Your task to perform on an android device: Open calendar and show me the fourth week of next month Image 0: 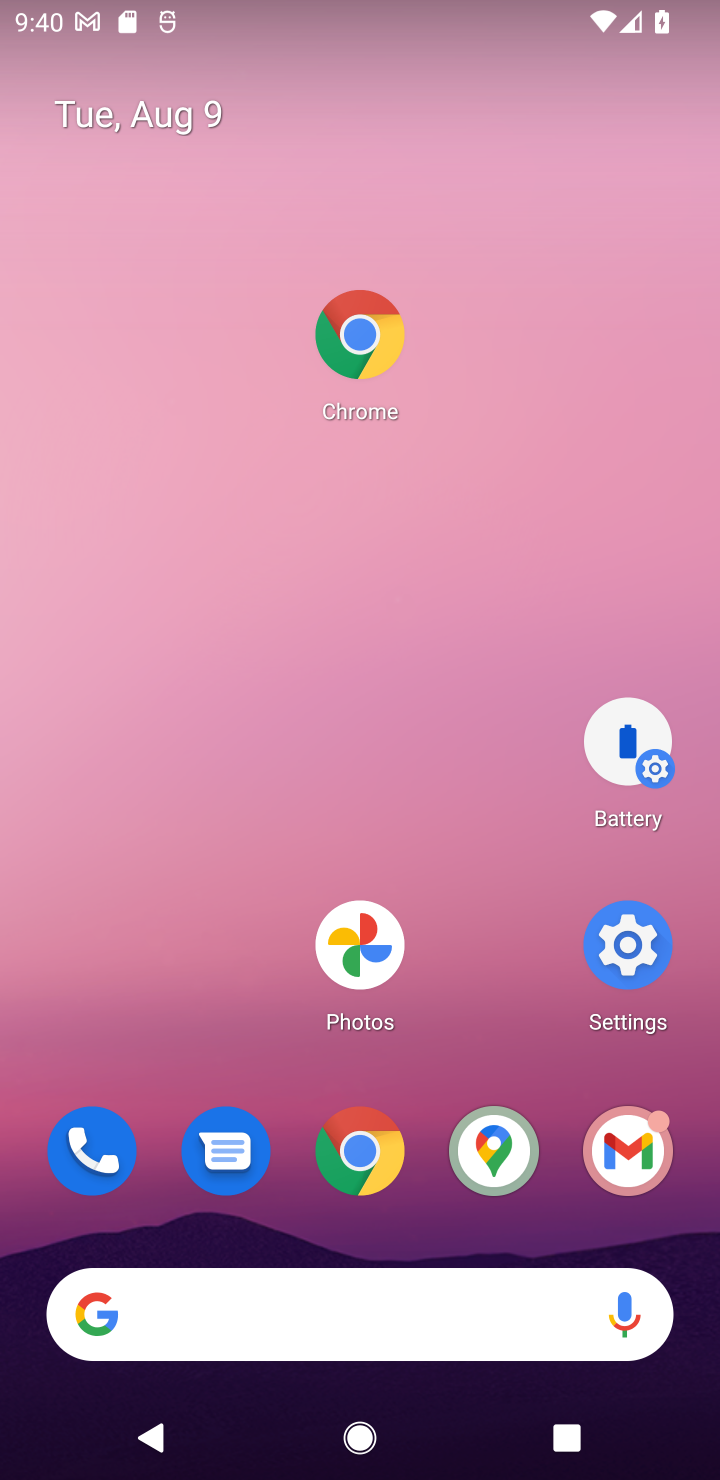
Step 0: press back button
Your task to perform on an android device: Open calendar and show me the fourth week of next month Image 1: 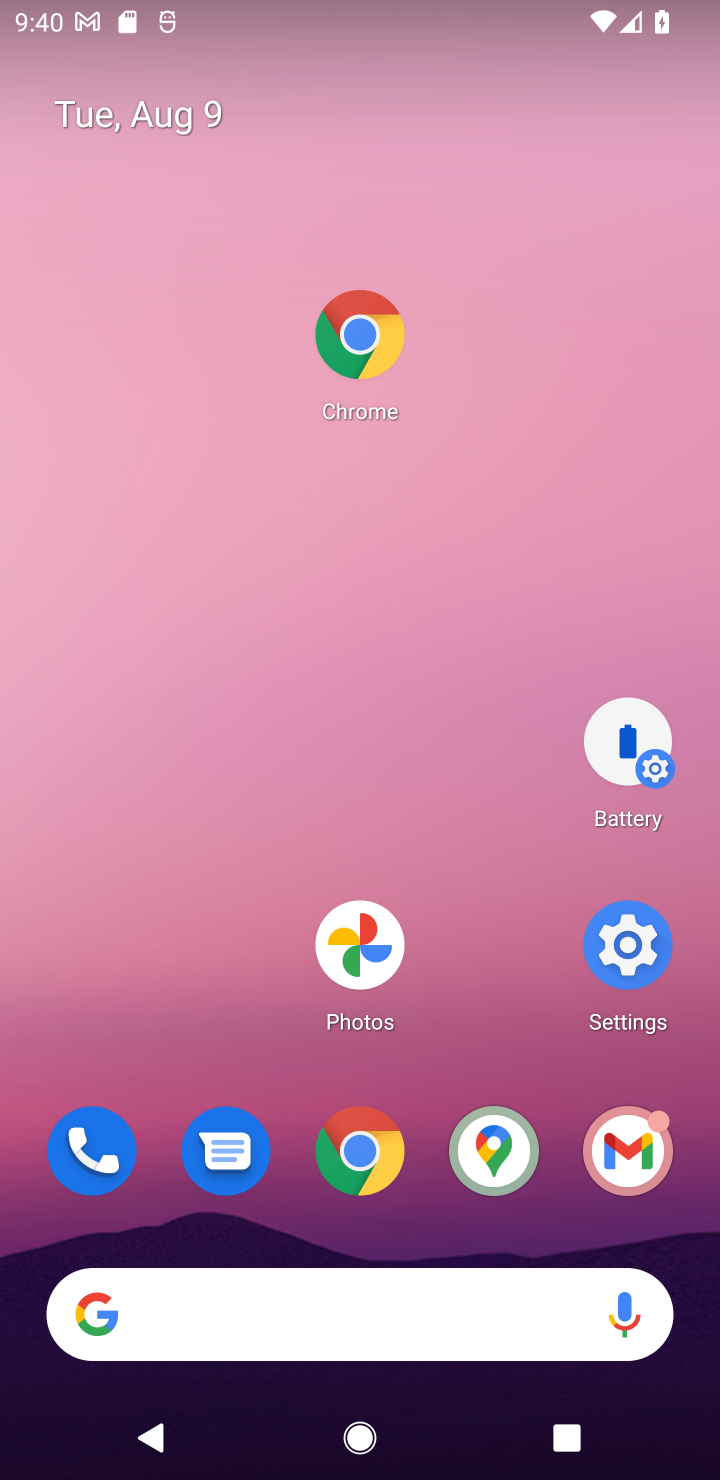
Step 1: drag from (267, 230) to (344, 360)
Your task to perform on an android device: Open calendar and show me the fourth week of next month Image 2: 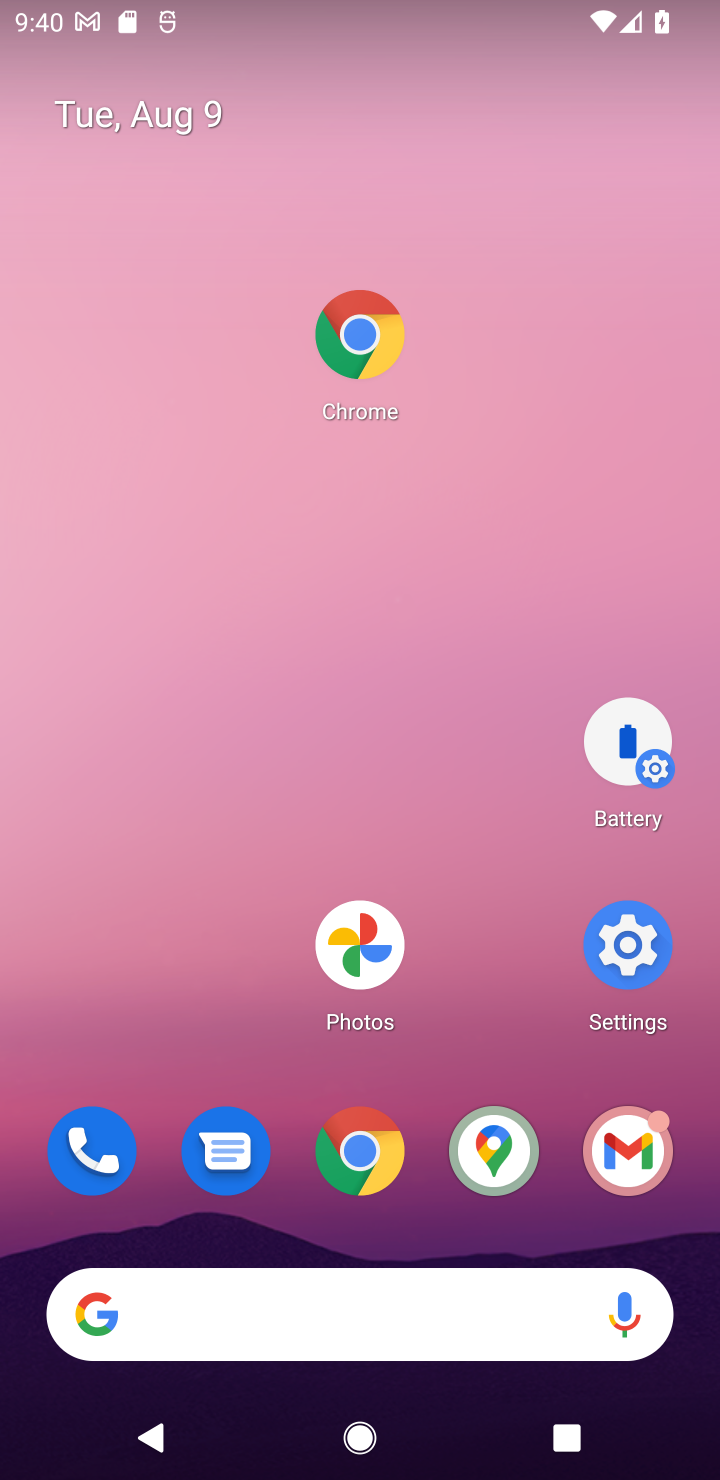
Step 2: drag from (283, 284) to (424, 737)
Your task to perform on an android device: Open calendar and show me the fourth week of next month Image 3: 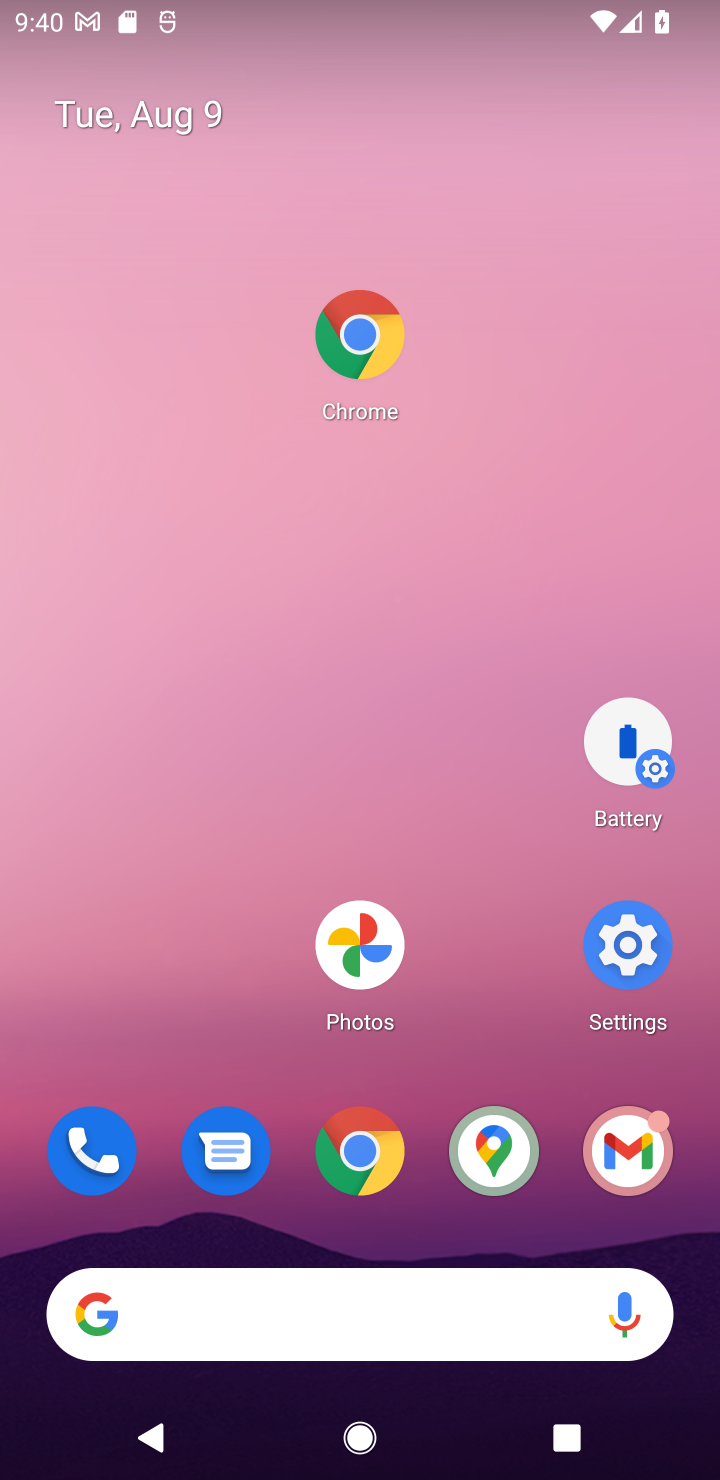
Step 3: drag from (295, 310) to (302, 175)
Your task to perform on an android device: Open calendar and show me the fourth week of next month Image 4: 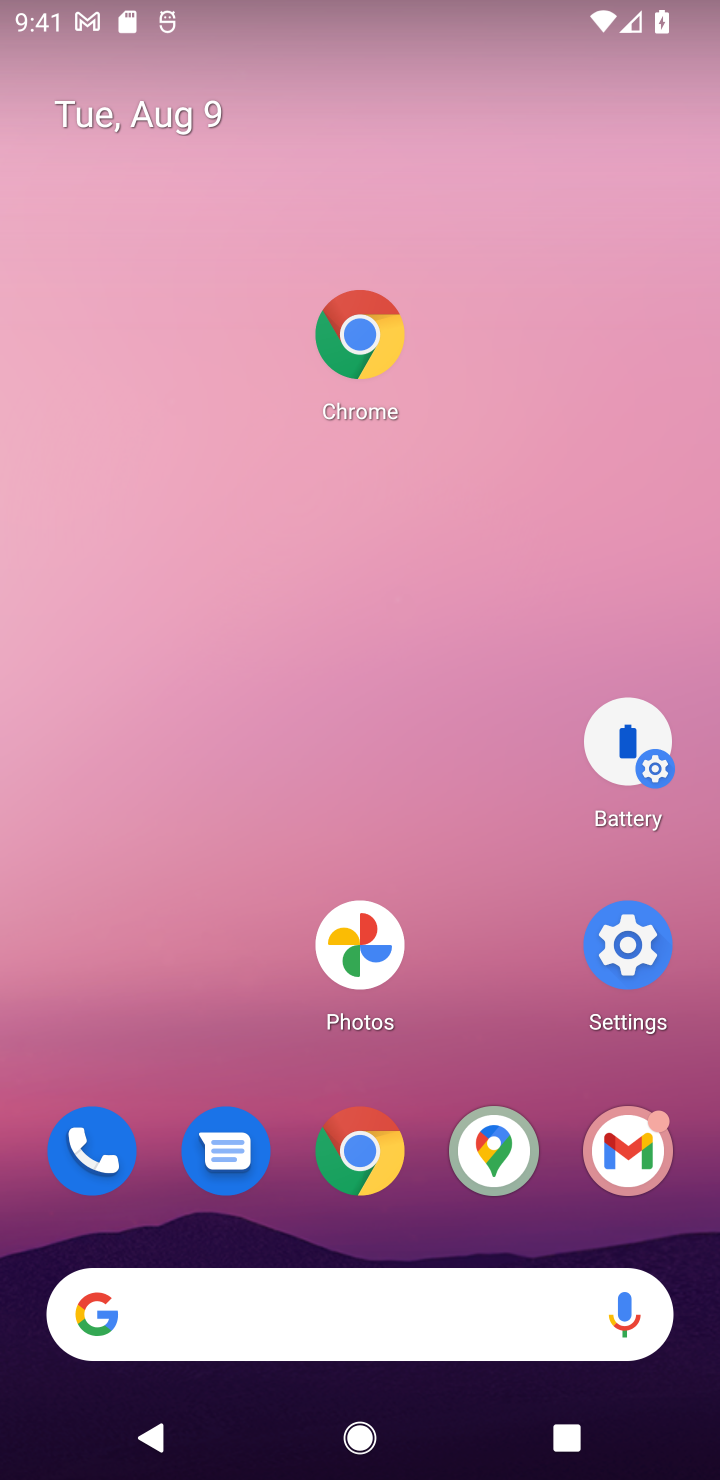
Step 4: drag from (400, 537) to (322, 406)
Your task to perform on an android device: Open calendar and show me the fourth week of next month Image 5: 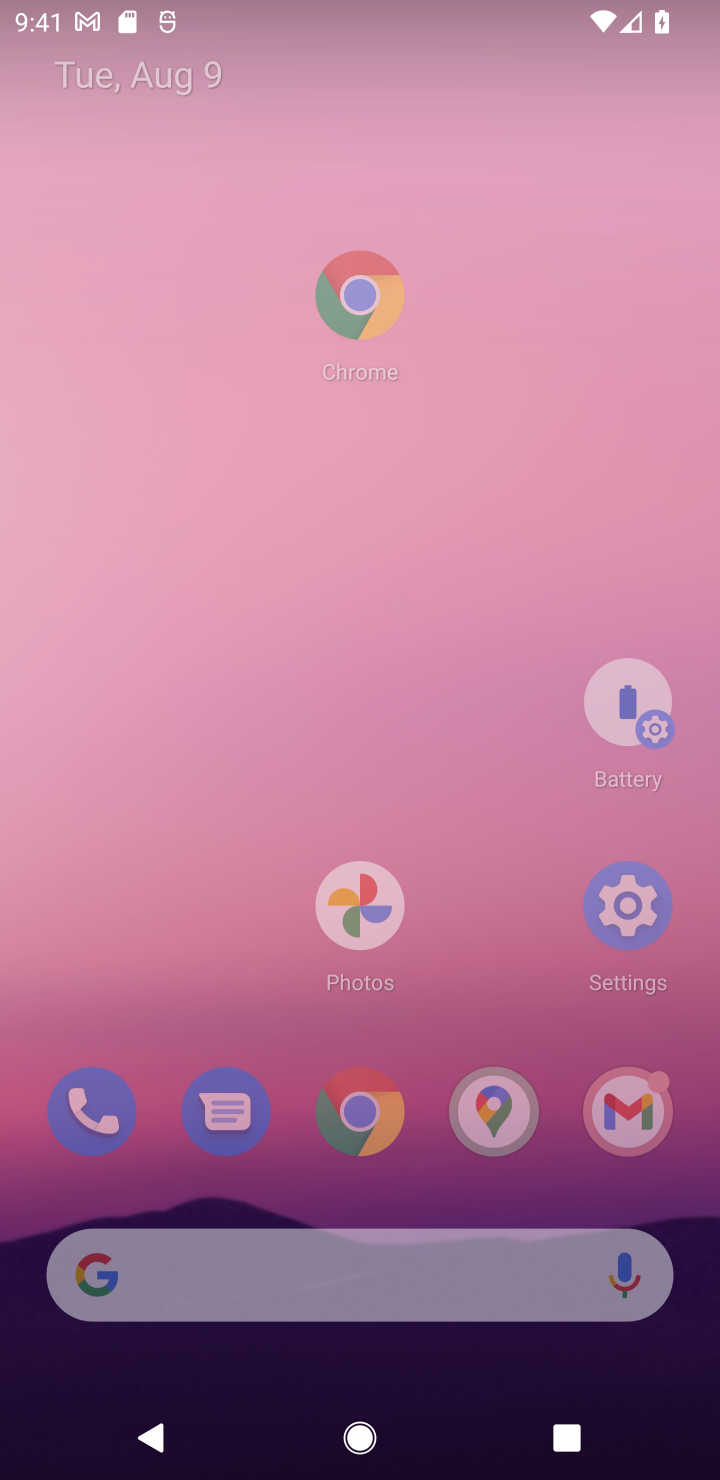
Step 5: drag from (307, 1151) to (261, 329)
Your task to perform on an android device: Open calendar and show me the fourth week of next month Image 6: 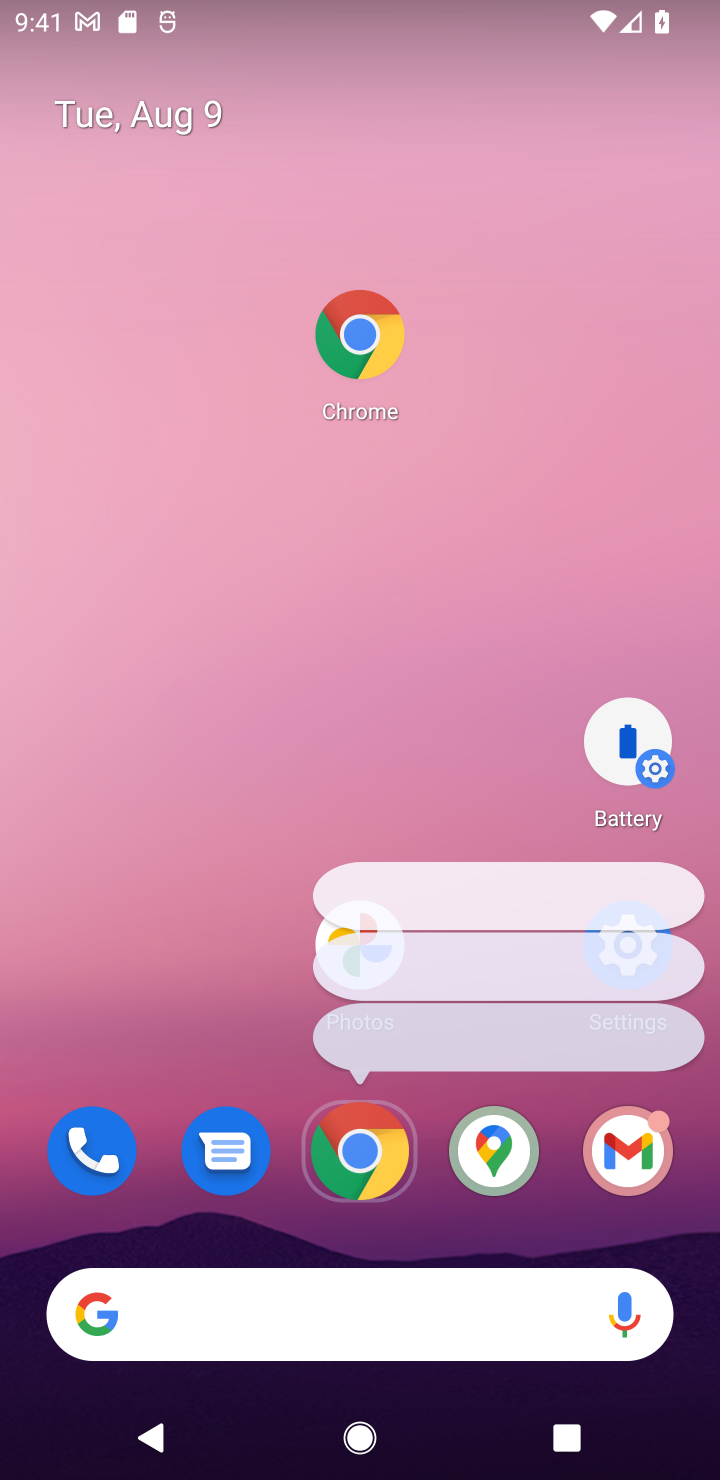
Step 6: drag from (441, 1117) to (206, 699)
Your task to perform on an android device: Open calendar and show me the fourth week of next month Image 7: 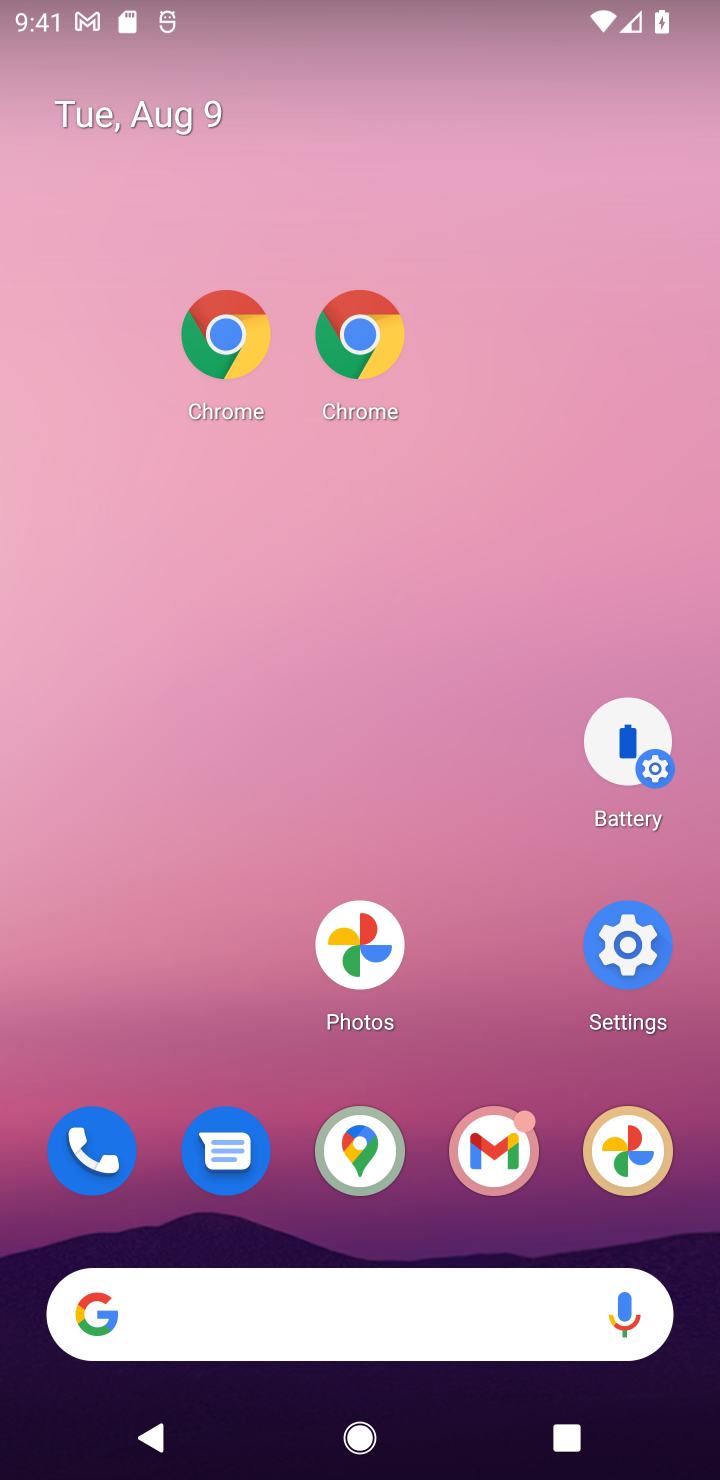
Step 7: press back button
Your task to perform on an android device: Open calendar and show me the fourth week of next month Image 8: 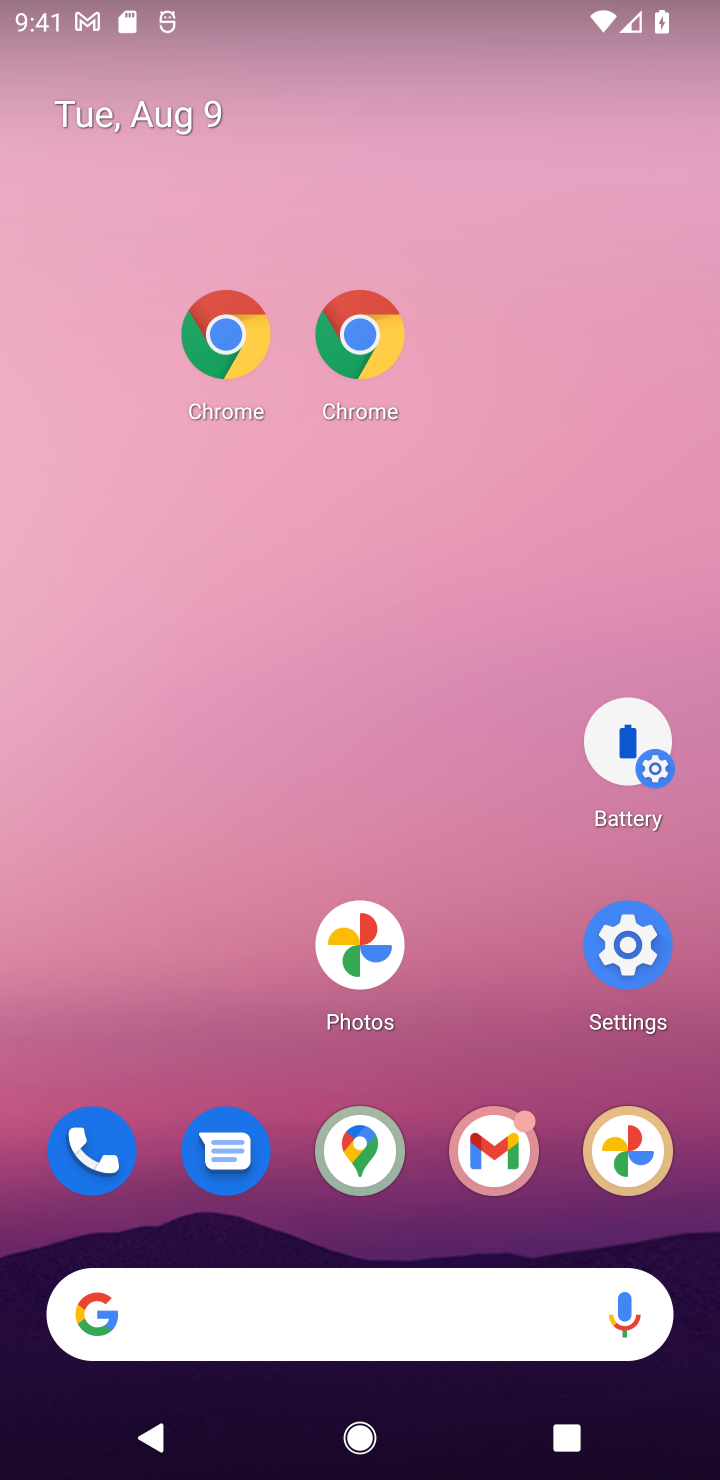
Step 8: press back button
Your task to perform on an android device: Open calendar and show me the fourth week of next month Image 9: 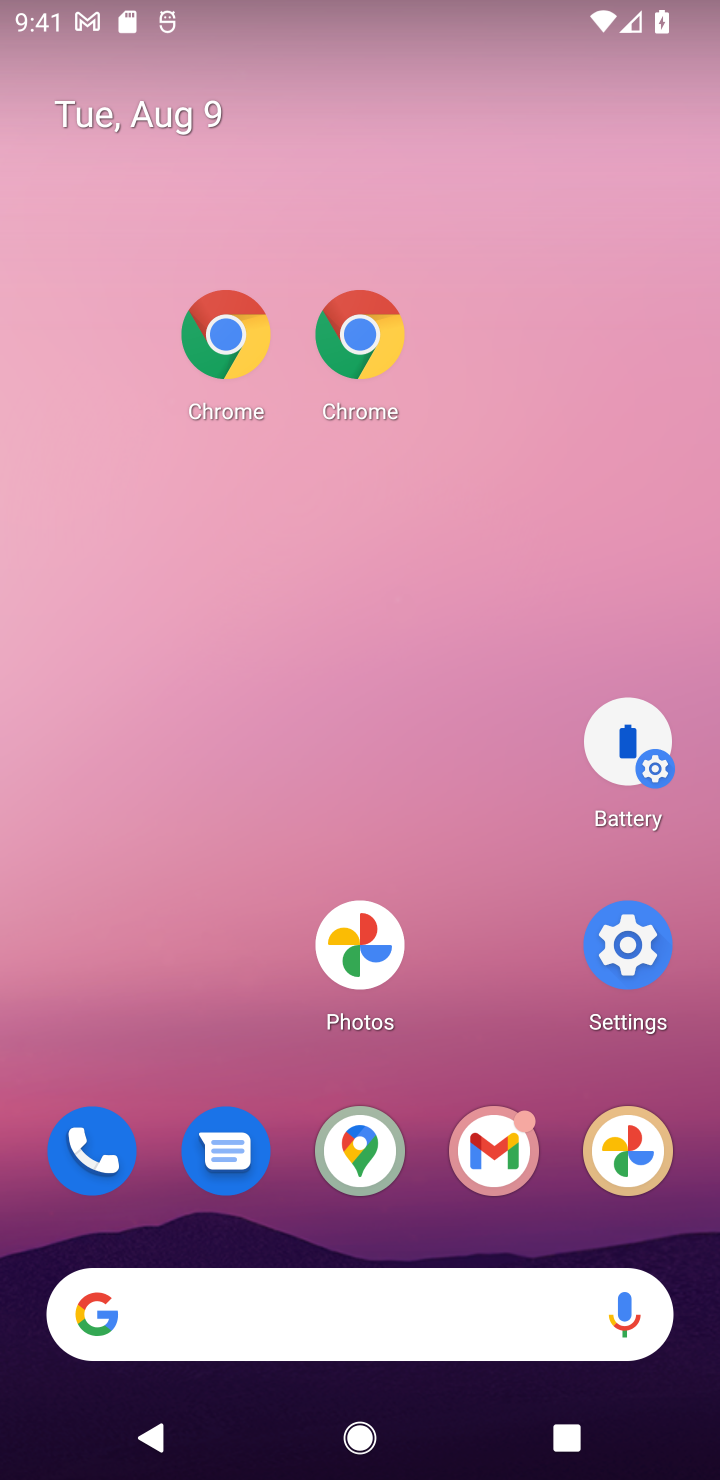
Step 9: press back button
Your task to perform on an android device: Open calendar and show me the fourth week of next month Image 10: 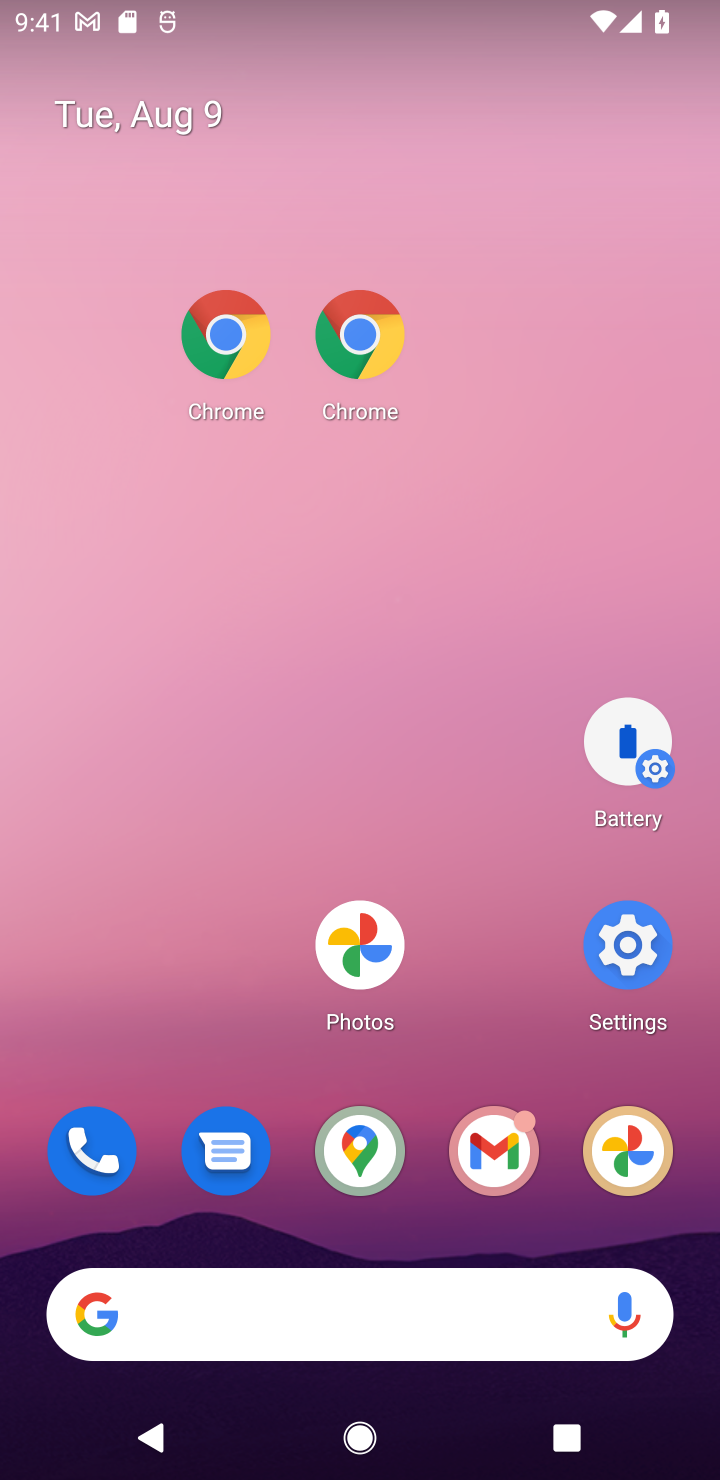
Step 10: press back button
Your task to perform on an android device: Open calendar and show me the fourth week of next month Image 11: 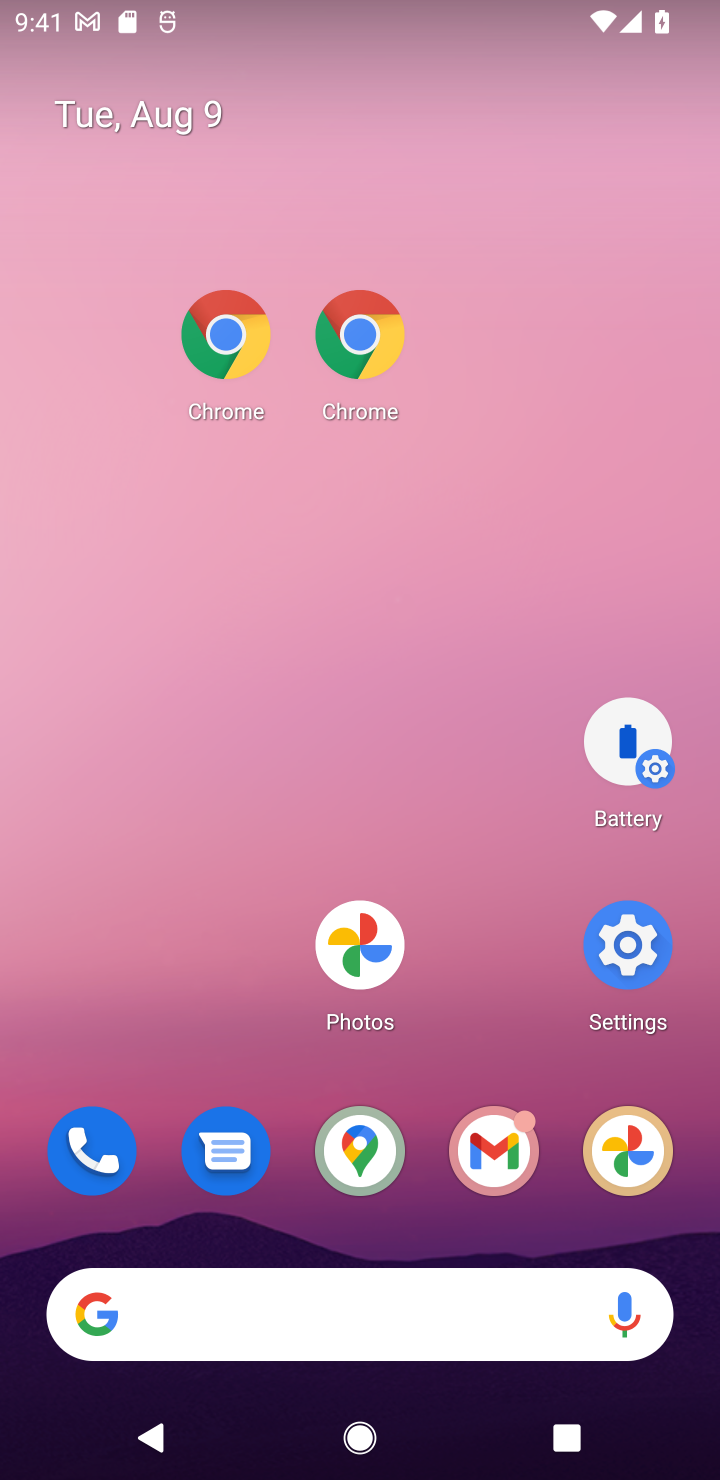
Step 11: press back button
Your task to perform on an android device: Open calendar and show me the fourth week of next month Image 12: 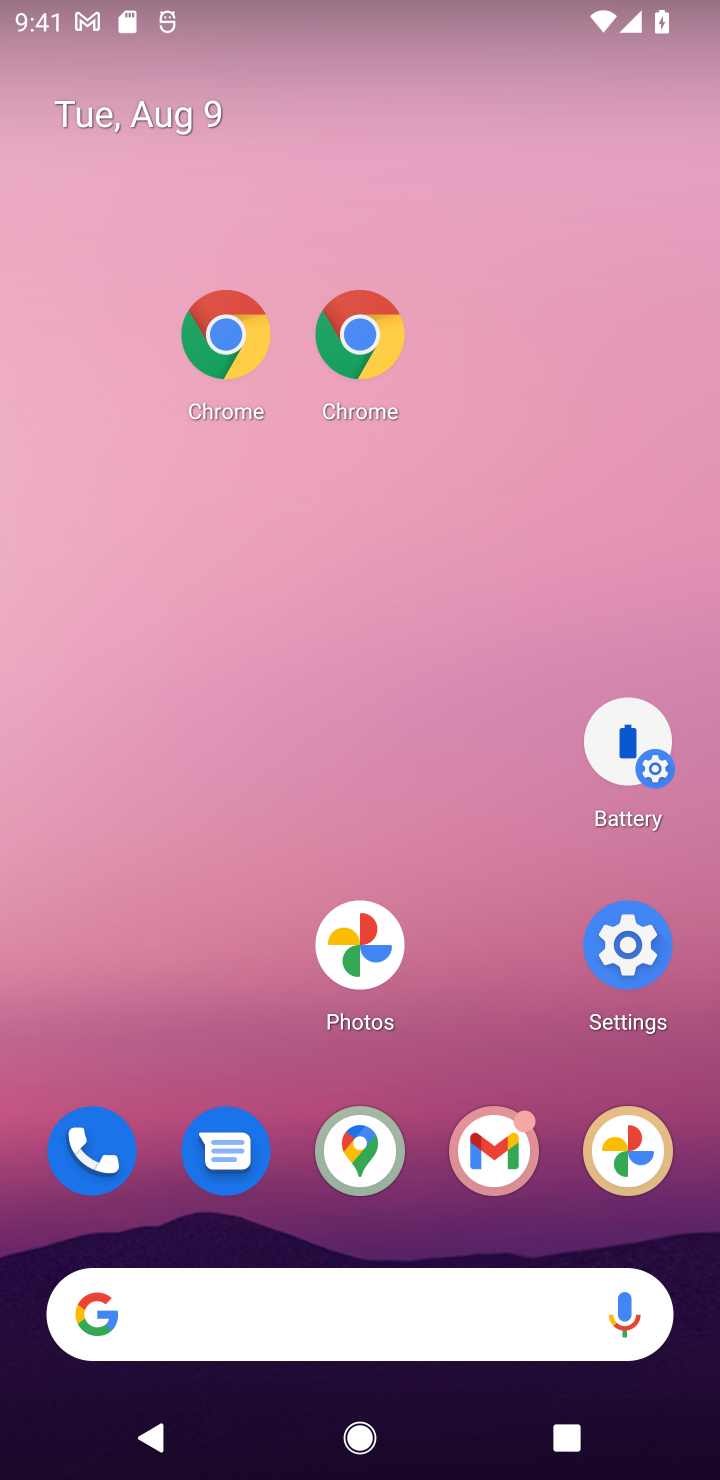
Step 12: drag from (459, 1054) to (333, 622)
Your task to perform on an android device: Open calendar and show me the fourth week of next month Image 13: 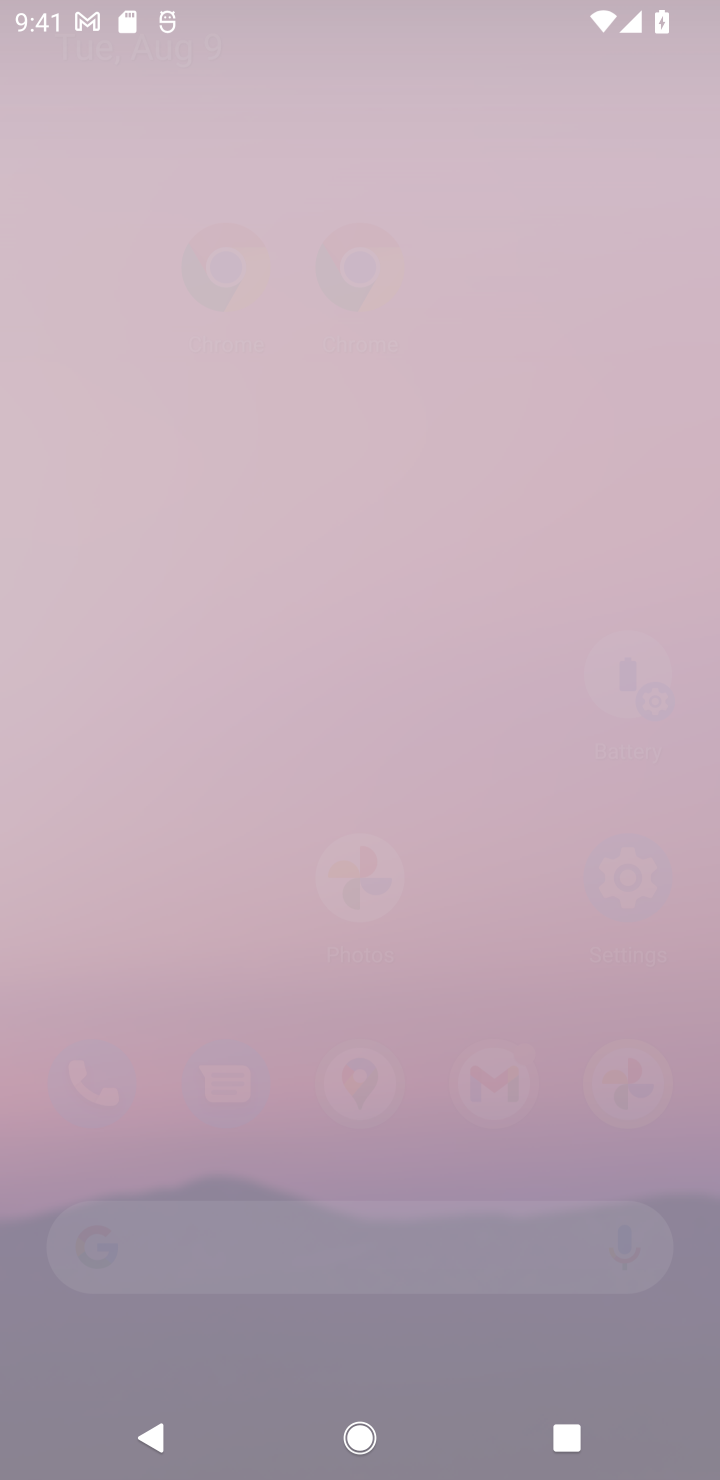
Step 13: click (320, 448)
Your task to perform on an android device: Open calendar and show me the fourth week of next month Image 14: 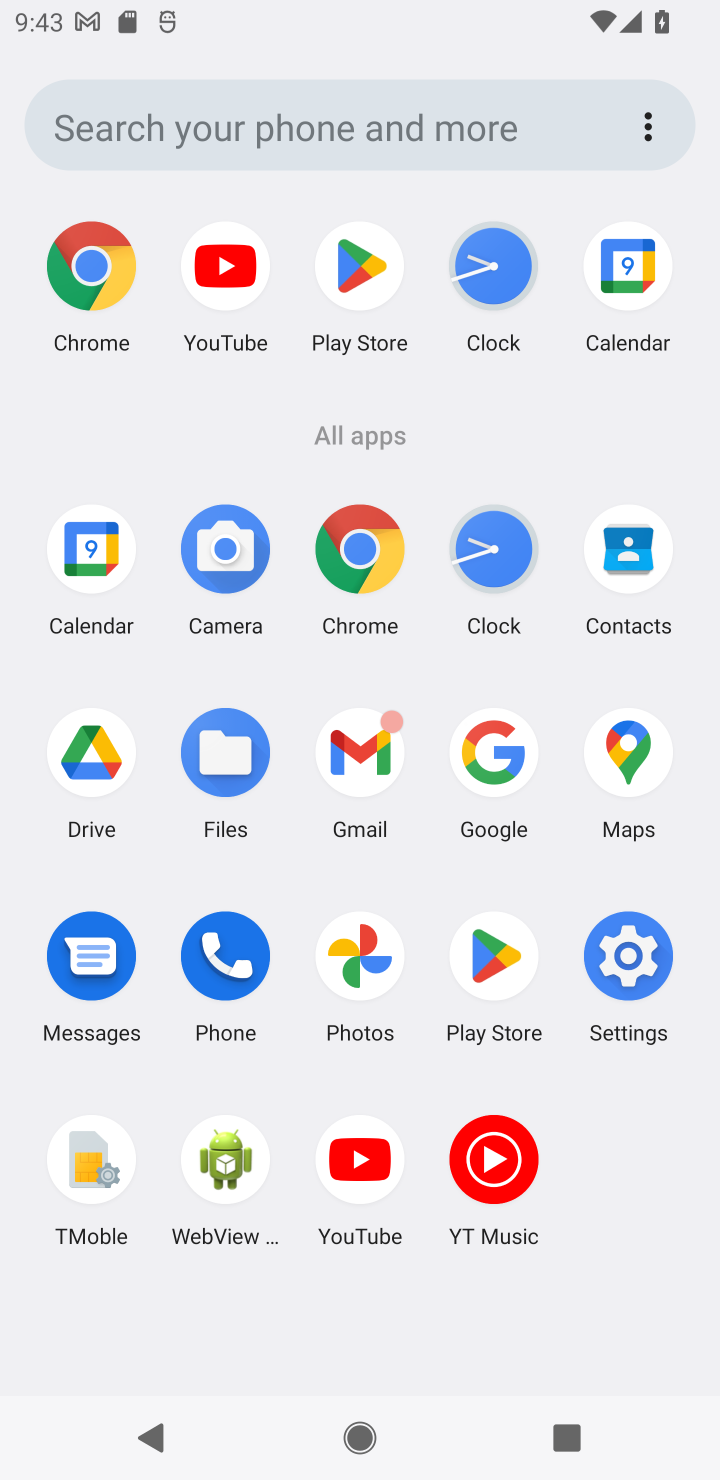
Step 14: click (71, 588)
Your task to perform on an android device: Open calendar and show me the fourth week of next month Image 15: 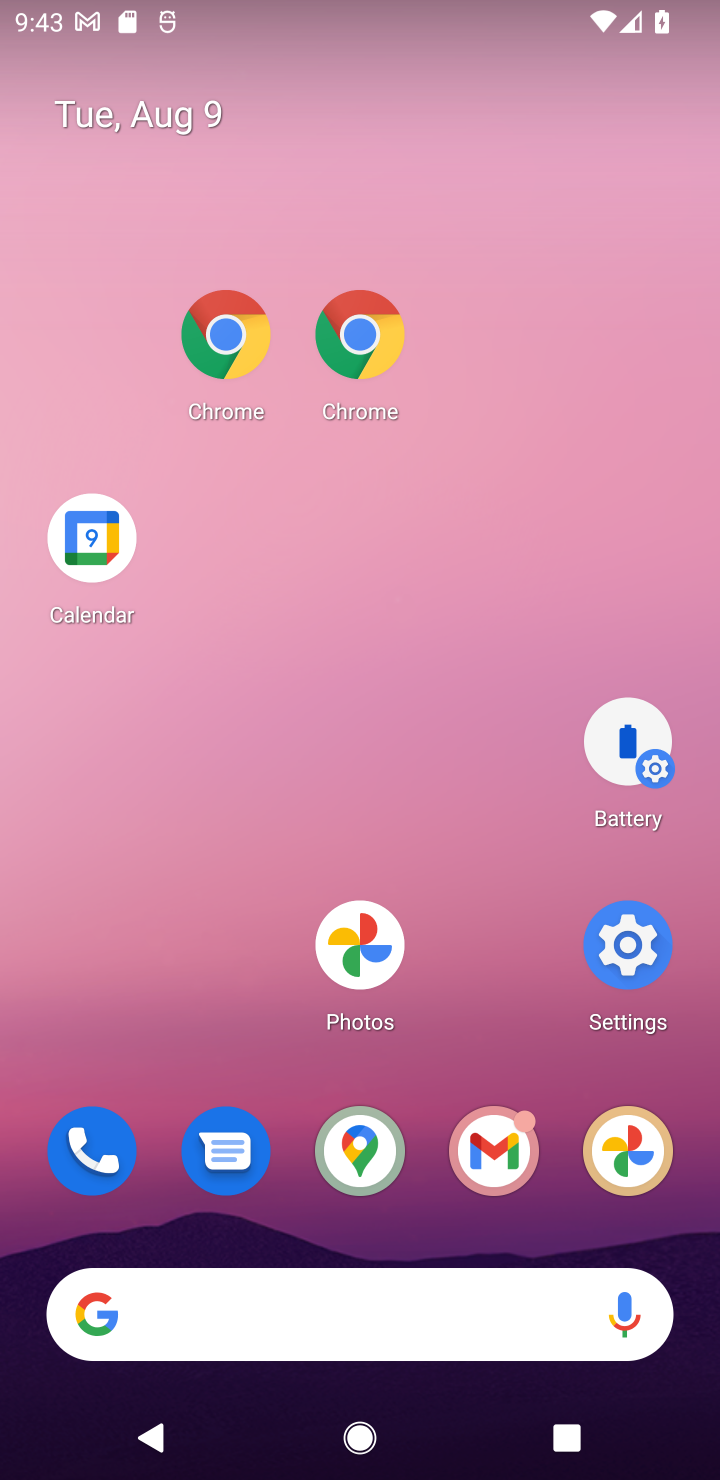
Step 15: drag from (320, 812) to (355, 294)
Your task to perform on an android device: Open calendar and show me the fourth week of next month Image 16: 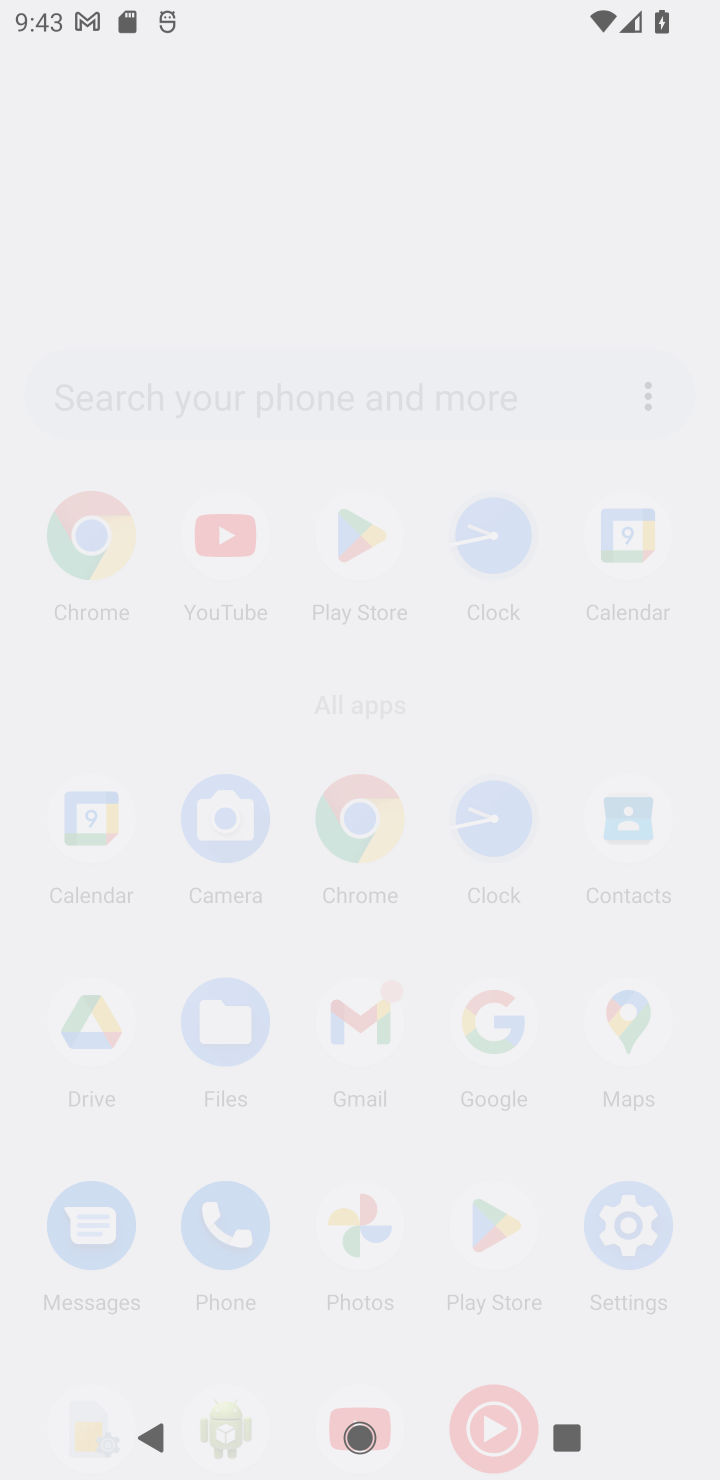
Step 16: drag from (382, 304) to (389, 178)
Your task to perform on an android device: Open calendar and show me the fourth week of next month Image 17: 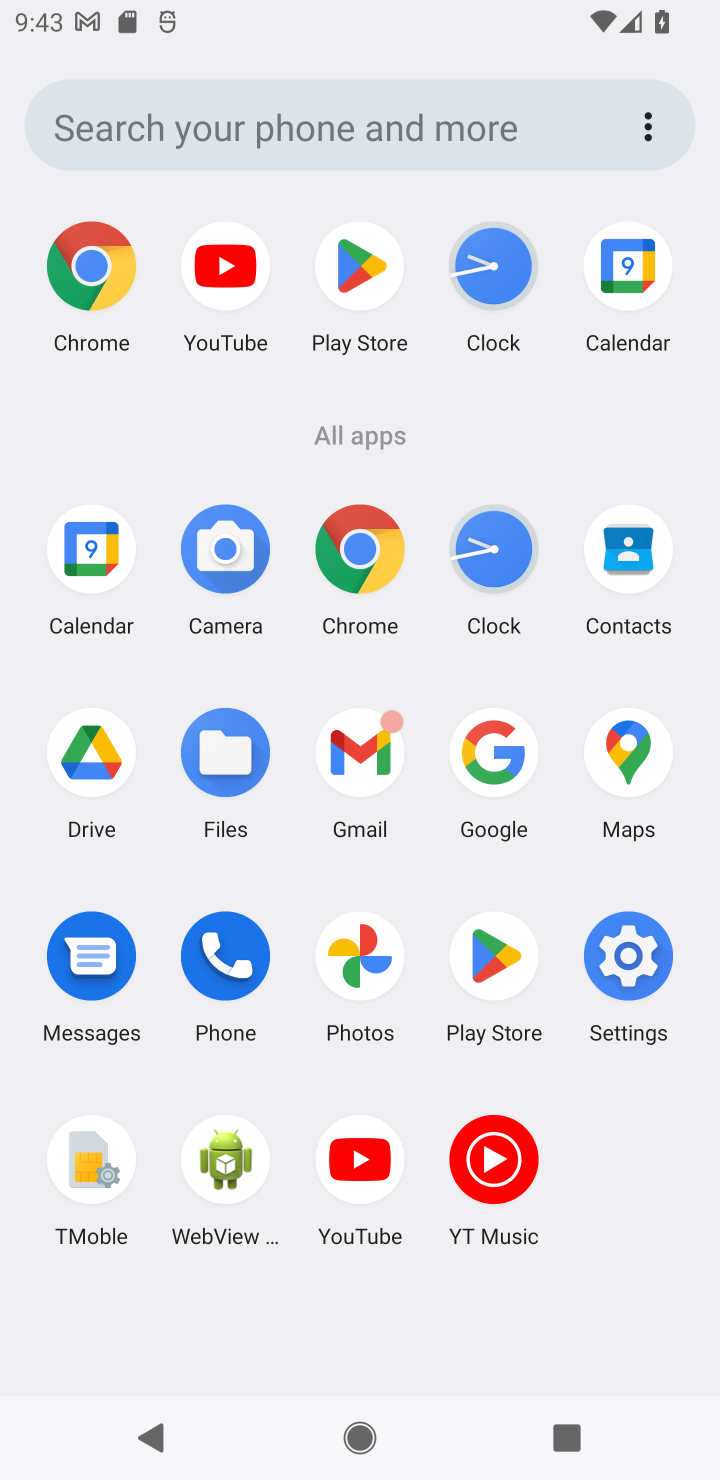
Step 17: click (97, 561)
Your task to perform on an android device: Open calendar and show me the fourth week of next month Image 18: 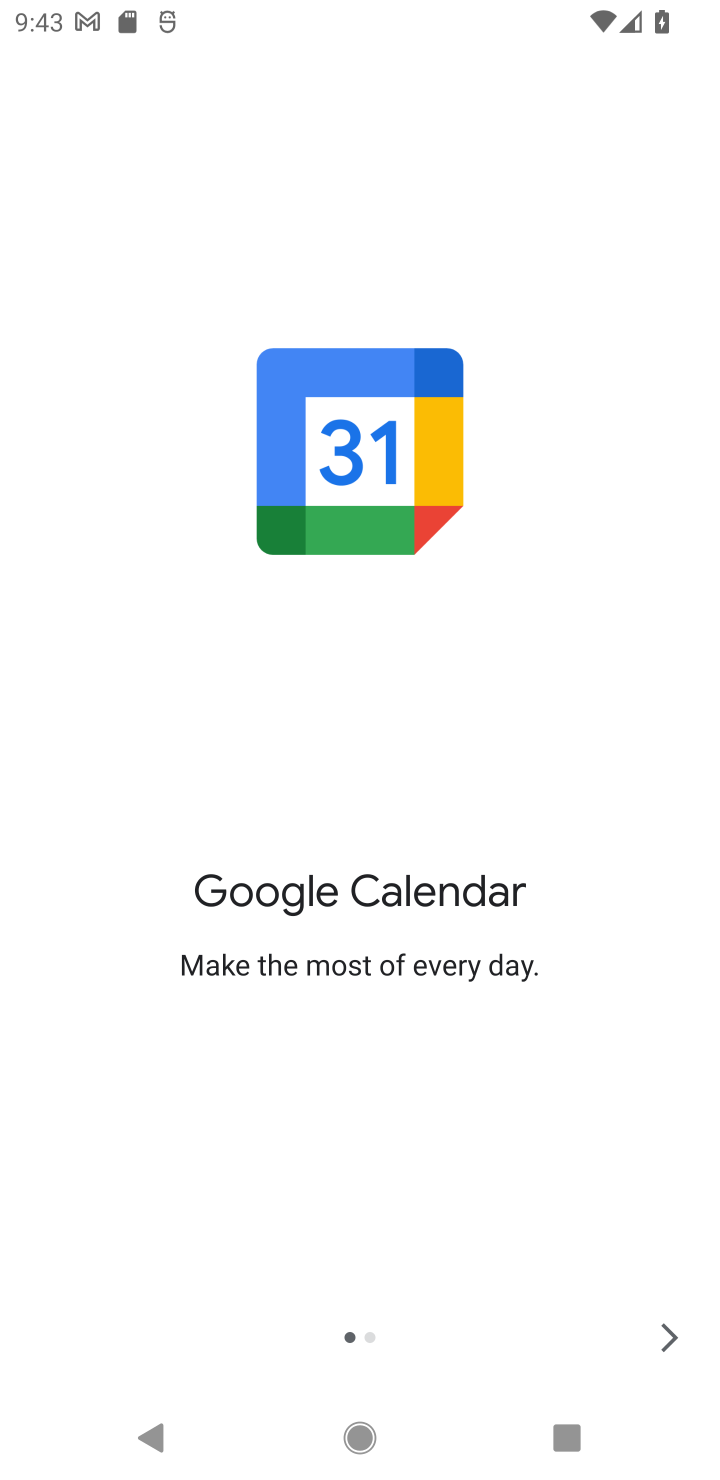
Step 18: click (661, 1342)
Your task to perform on an android device: Open calendar and show me the fourth week of next month Image 19: 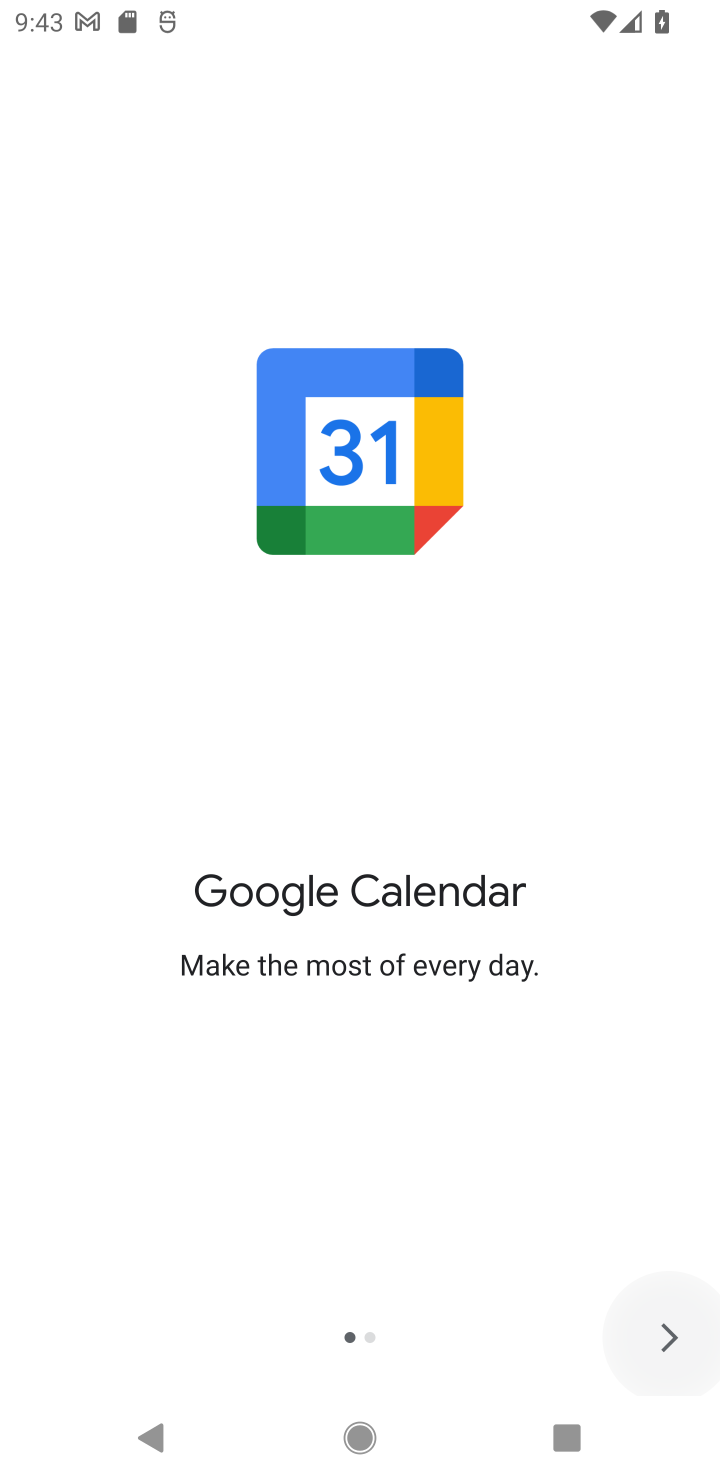
Step 19: click (661, 1342)
Your task to perform on an android device: Open calendar and show me the fourth week of next month Image 20: 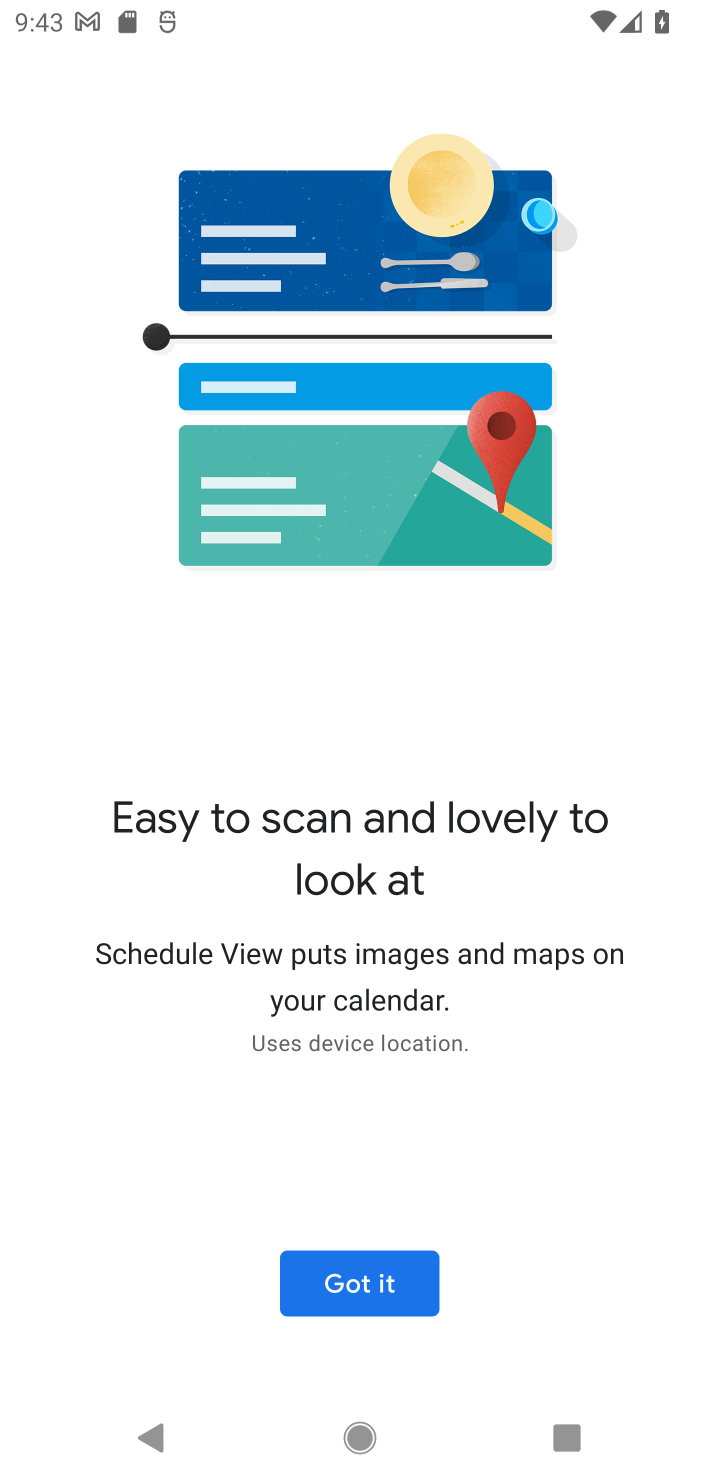
Step 20: click (386, 1274)
Your task to perform on an android device: Open calendar and show me the fourth week of next month Image 21: 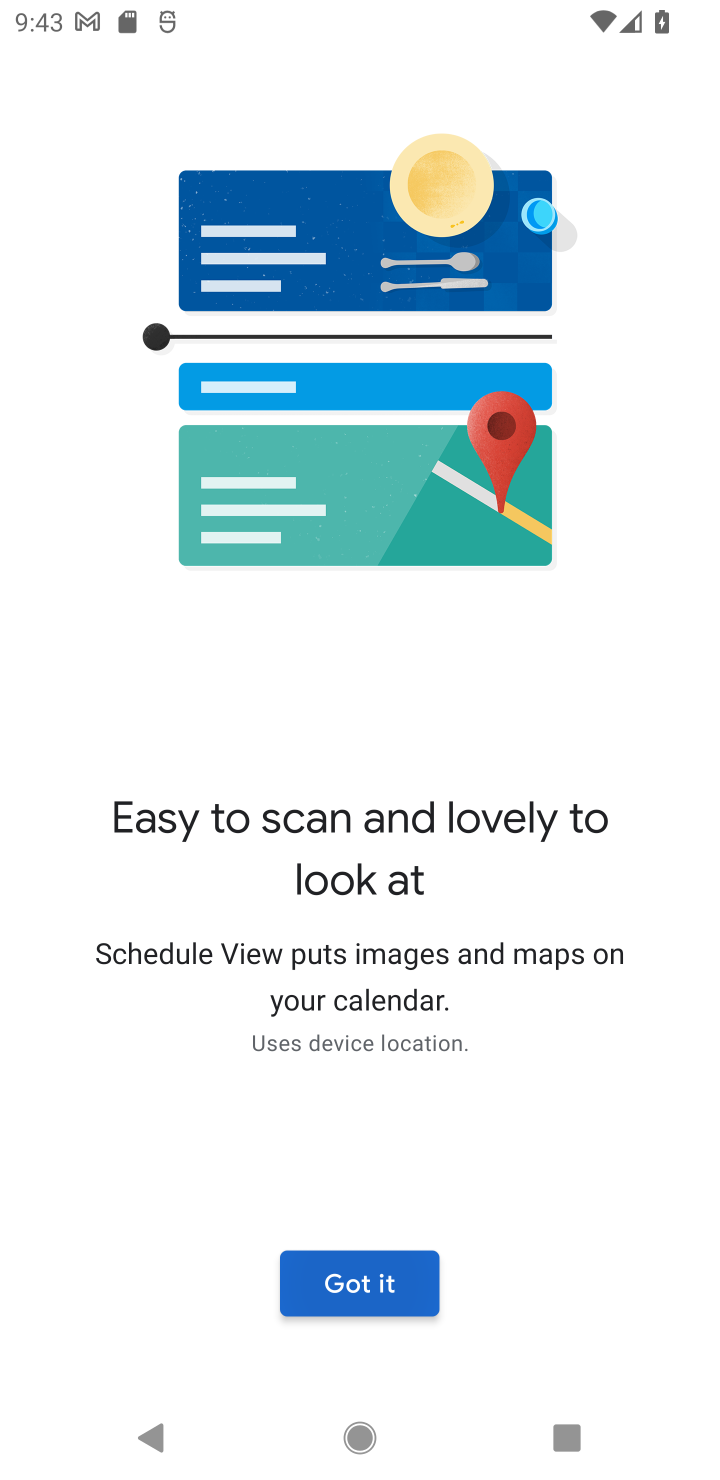
Step 21: click (412, 1299)
Your task to perform on an android device: Open calendar and show me the fourth week of next month Image 22: 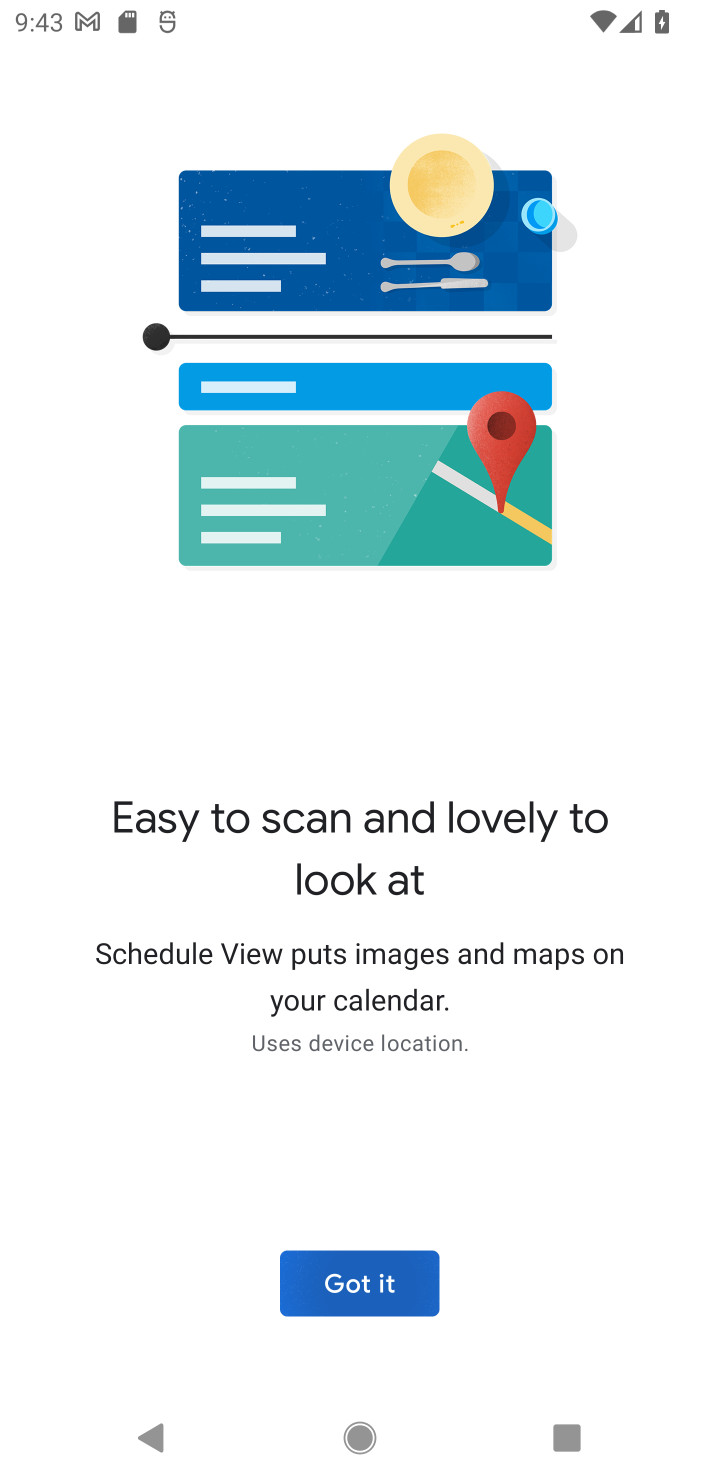
Step 22: click (422, 1297)
Your task to perform on an android device: Open calendar and show me the fourth week of next month Image 23: 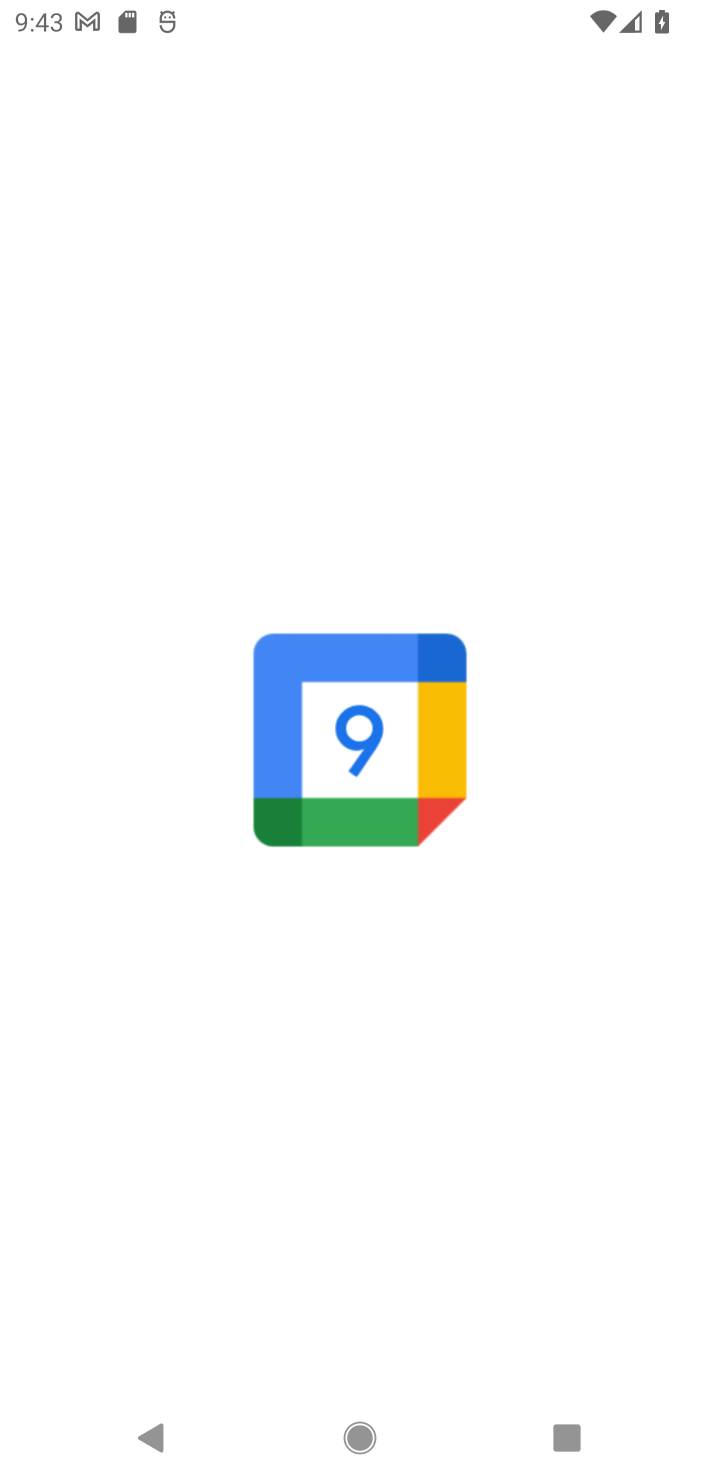
Step 23: click (429, 1282)
Your task to perform on an android device: Open calendar and show me the fourth week of next month Image 24: 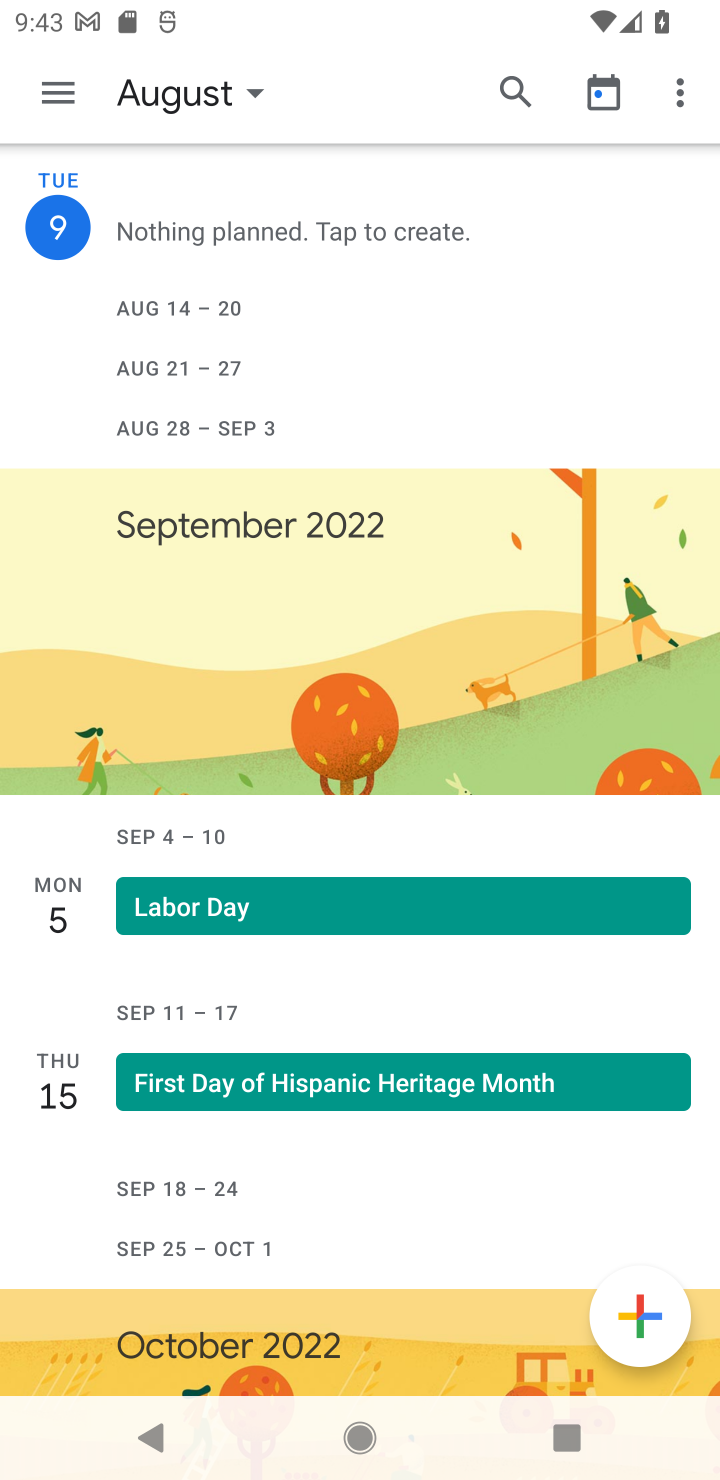
Step 24: click (266, 83)
Your task to perform on an android device: Open calendar and show me the fourth week of next month Image 25: 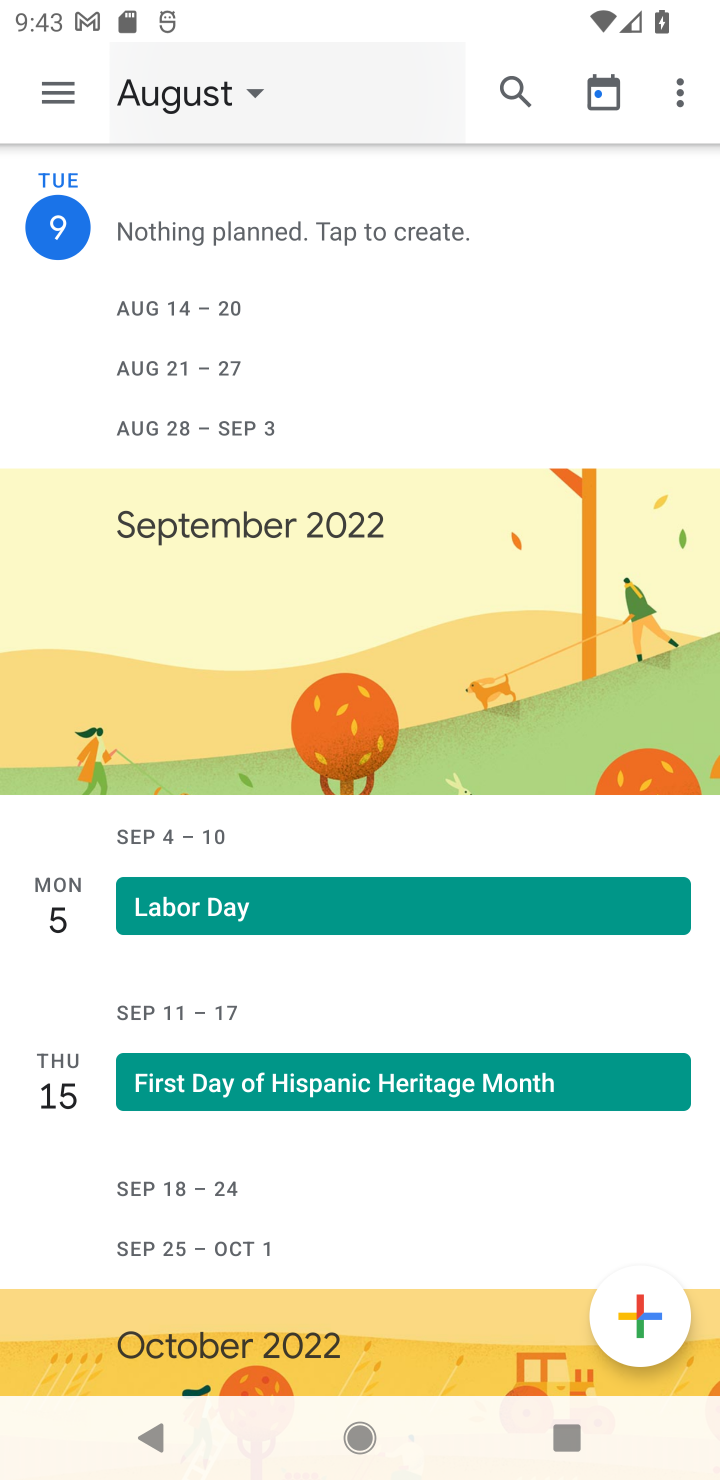
Step 25: drag from (256, 91) to (102, 357)
Your task to perform on an android device: Open calendar and show me the fourth week of next month Image 26: 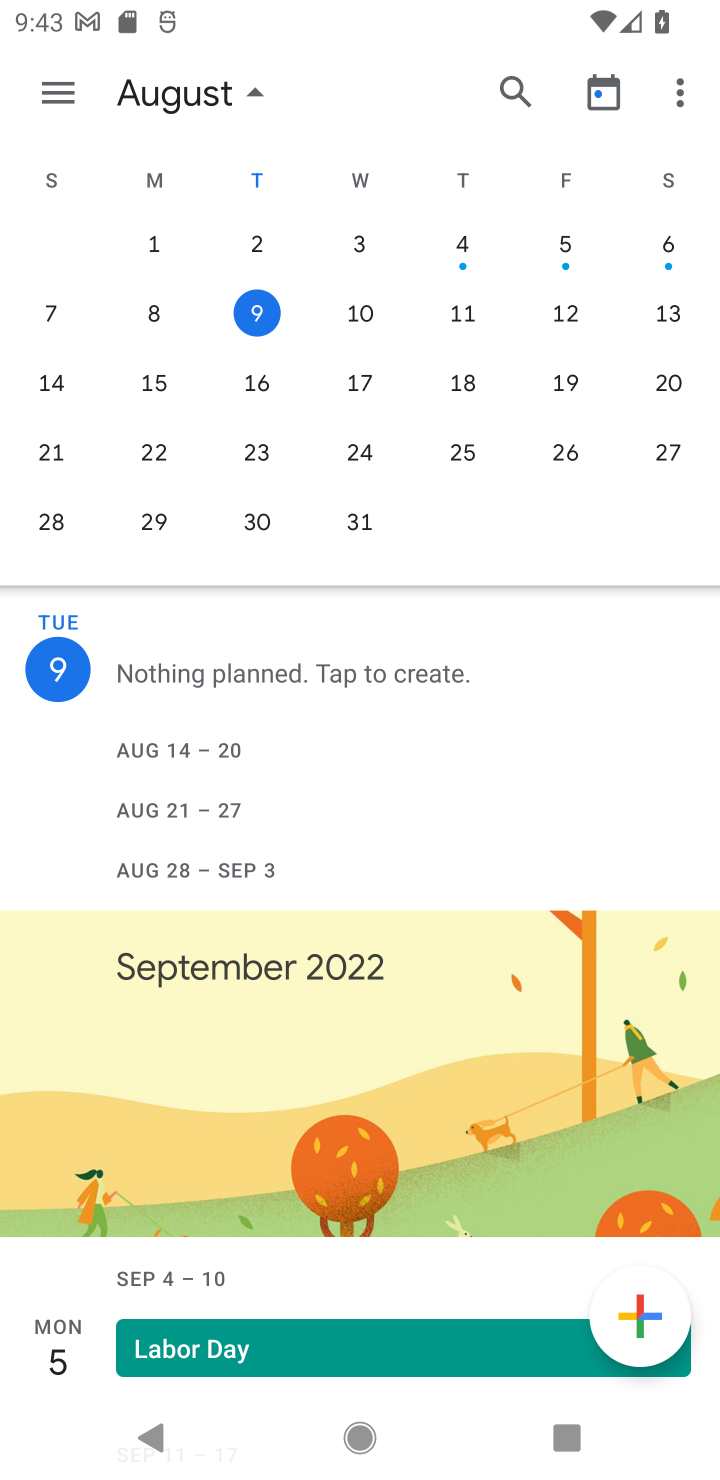
Step 26: click (91, 410)
Your task to perform on an android device: Open calendar and show me the fourth week of next month Image 27: 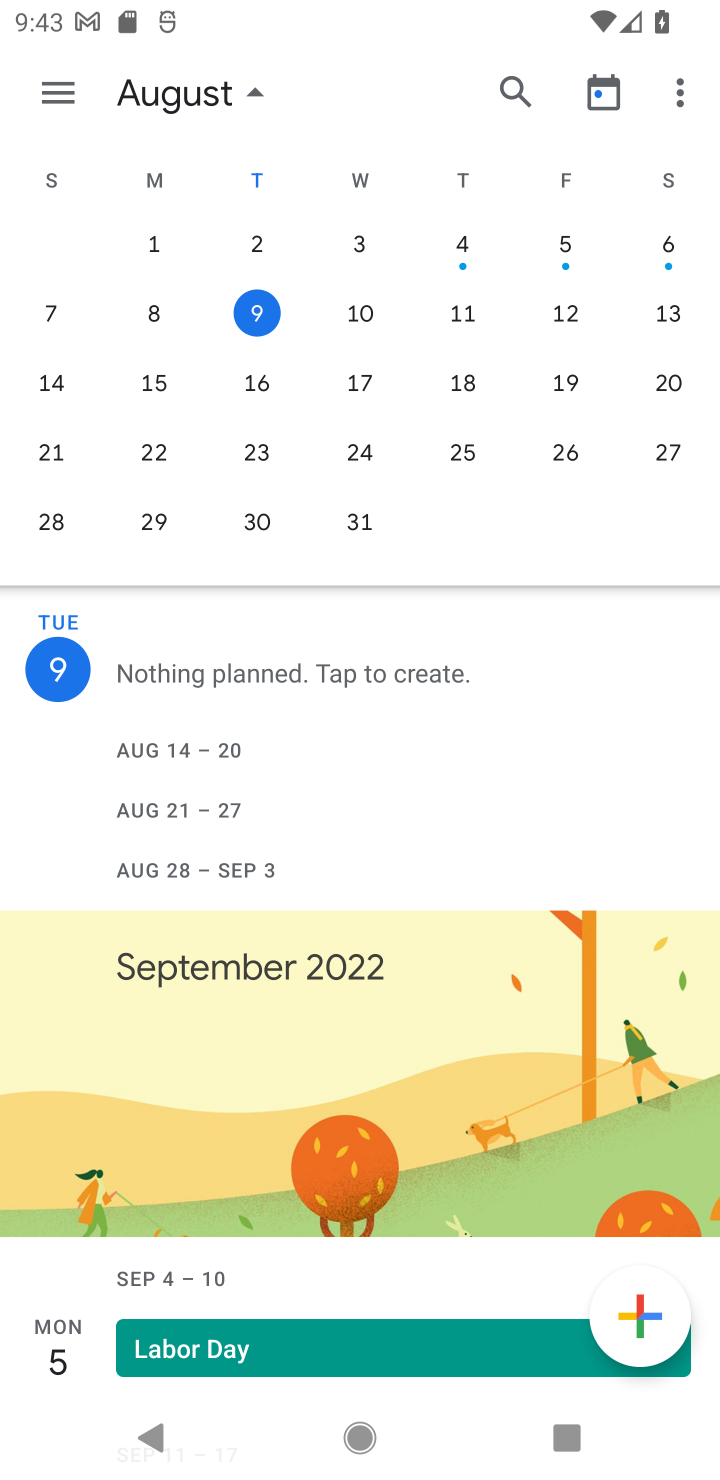
Step 27: task complete